Your task to perform on an android device: toggle show notifications on the lock screen Image 0: 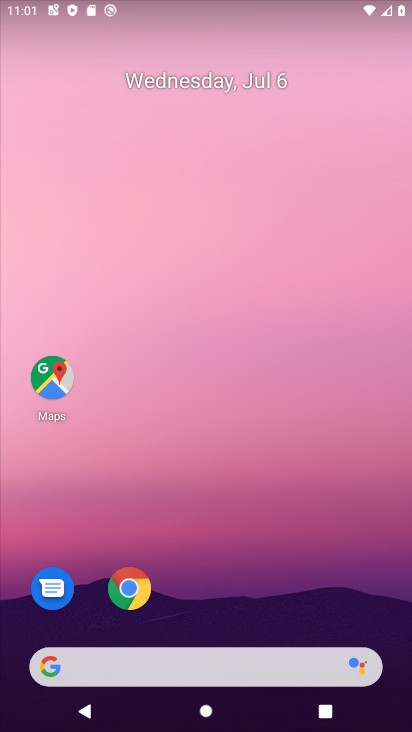
Step 0: drag from (247, 604) to (242, 260)
Your task to perform on an android device: toggle show notifications on the lock screen Image 1: 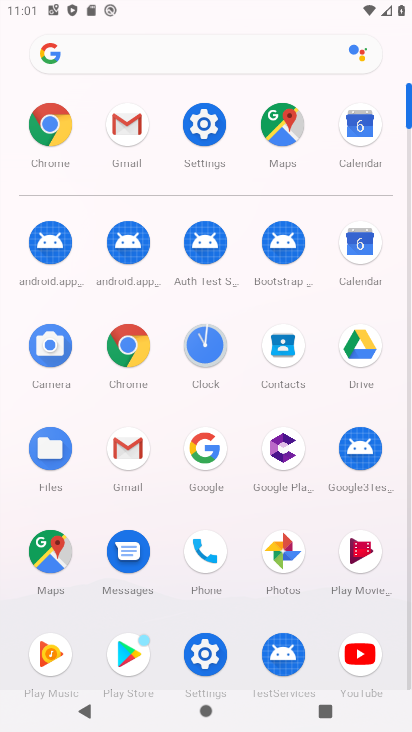
Step 1: click (163, 111)
Your task to perform on an android device: toggle show notifications on the lock screen Image 2: 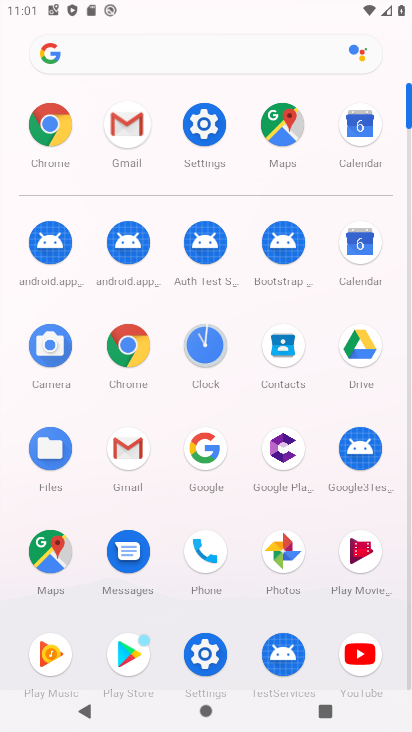
Step 2: click (199, 121)
Your task to perform on an android device: toggle show notifications on the lock screen Image 3: 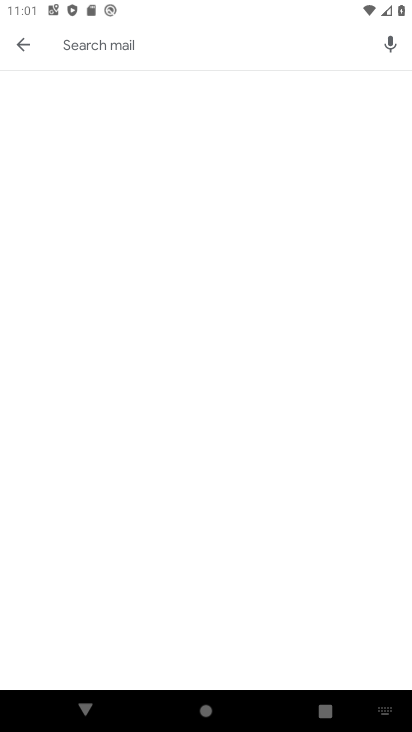
Step 3: press home button
Your task to perform on an android device: toggle show notifications on the lock screen Image 4: 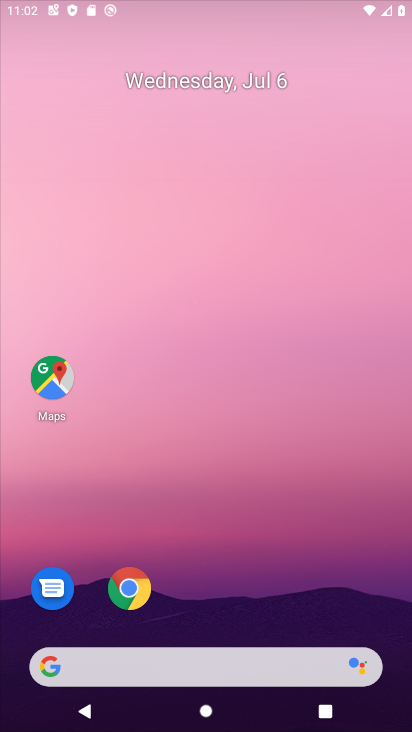
Step 4: drag from (196, 603) to (196, 220)
Your task to perform on an android device: toggle show notifications on the lock screen Image 5: 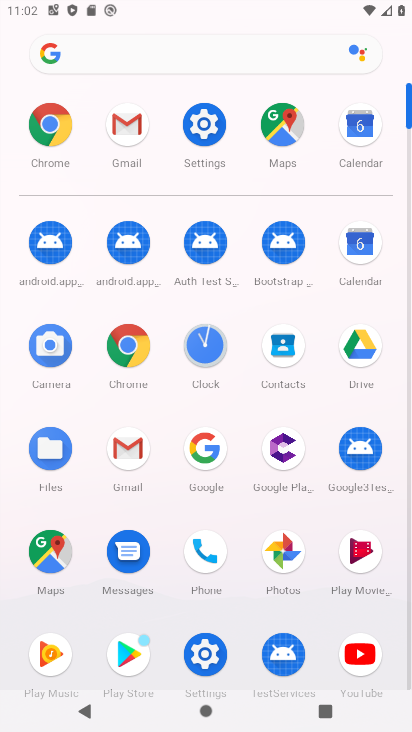
Step 5: click (206, 113)
Your task to perform on an android device: toggle show notifications on the lock screen Image 6: 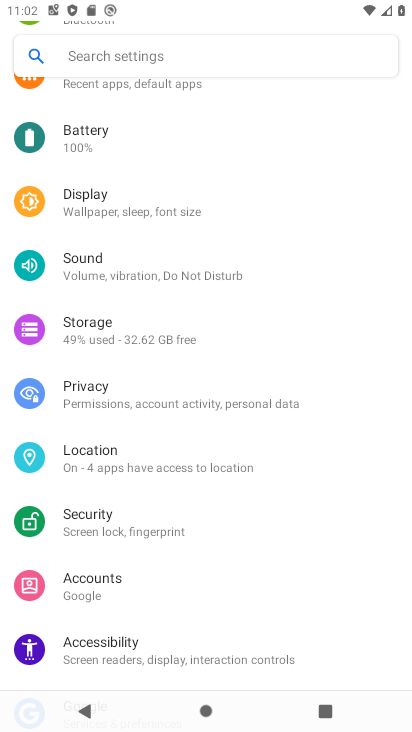
Step 6: drag from (186, 110) to (168, 649)
Your task to perform on an android device: toggle show notifications on the lock screen Image 7: 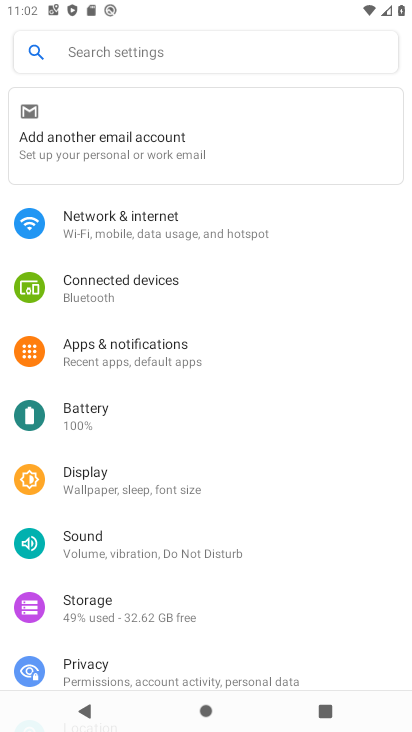
Step 7: click (187, 339)
Your task to perform on an android device: toggle show notifications on the lock screen Image 8: 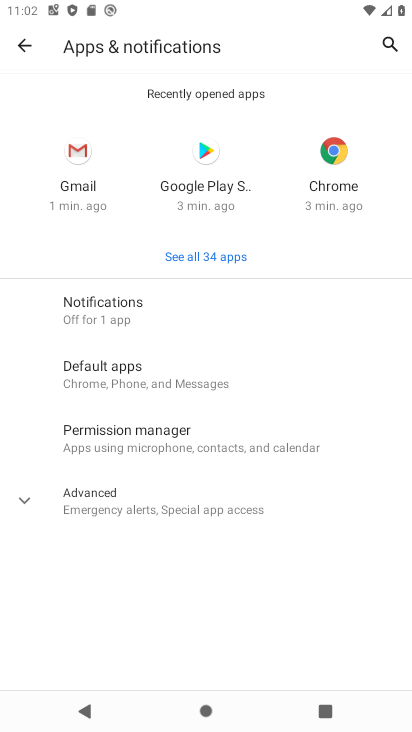
Step 8: click (156, 308)
Your task to perform on an android device: toggle show notifications on the lock screen Image 9: 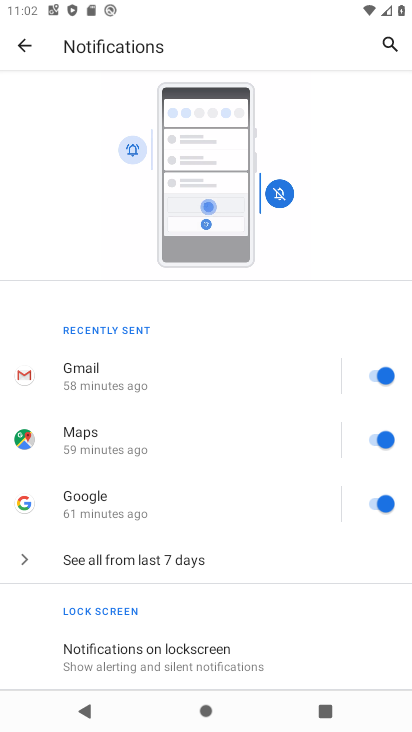
Step 9: click (189, 660)
Your task to perform on an android device: toggle show notifications on the lock screen Image 10: 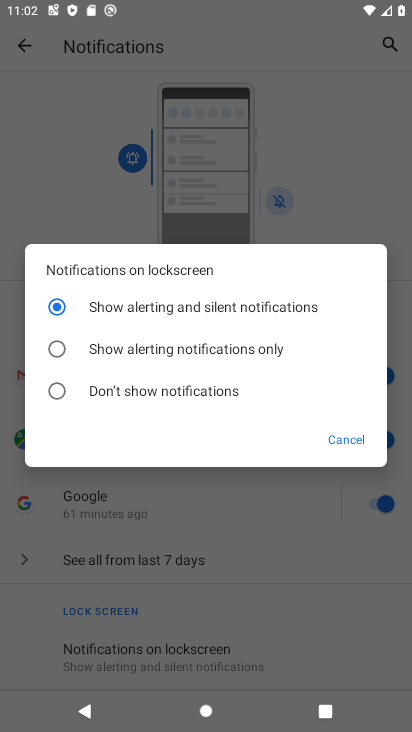
Step 10: click (128, 387)
Your task to perform on an android device: toggle show notifications on the lock screen Image 11: 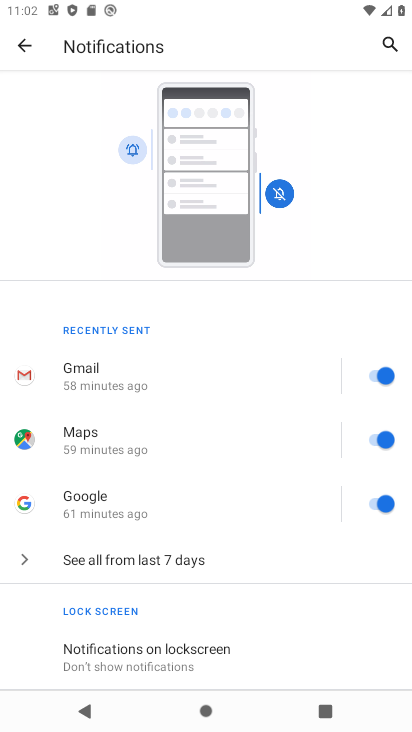
Step 11: task complete